Your task to perform on an android device: check storage Image 0: 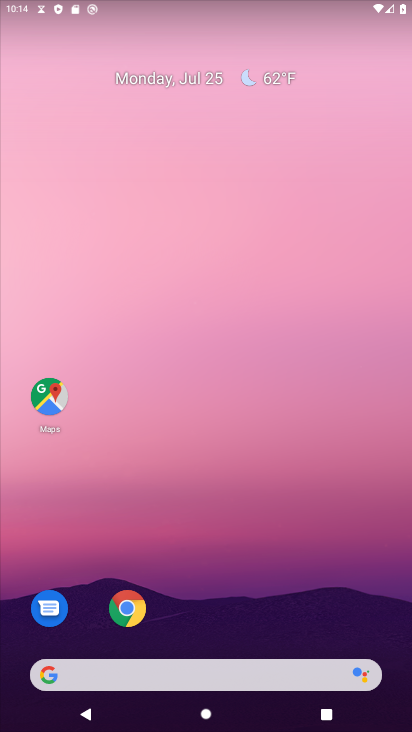
Step 0: drag from (206, 678) to (244, 264)
Your task to perform on an android device: check storage Image 1: 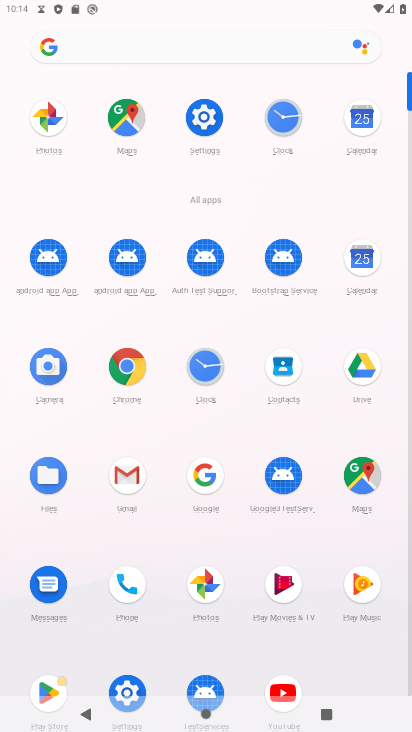
Step 1: click (206, 116)
Your task to perform on an android device: check storage Image 2: 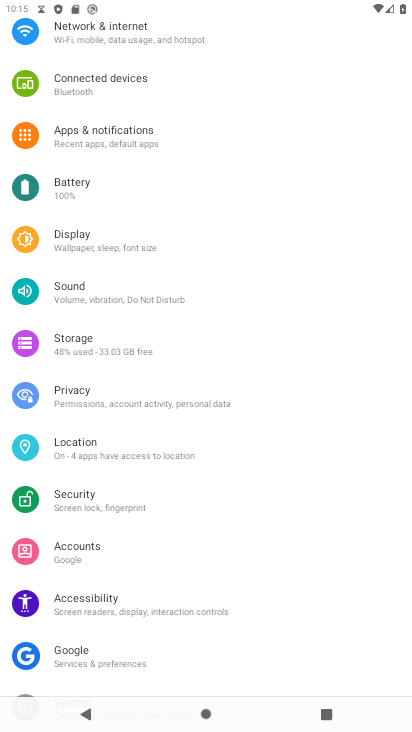
Step 2: click (93, 344)
Your task to perform on an android device: check storage Image 3: 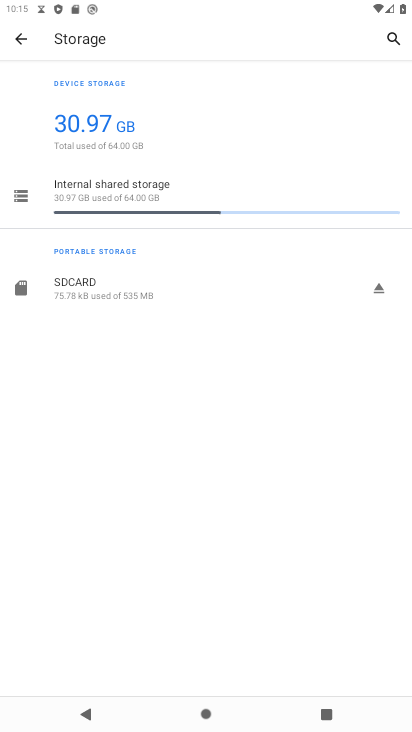
Step 3: task complete